Your task to perform on an android device: choose inbox layout in the gmail app Image 0: 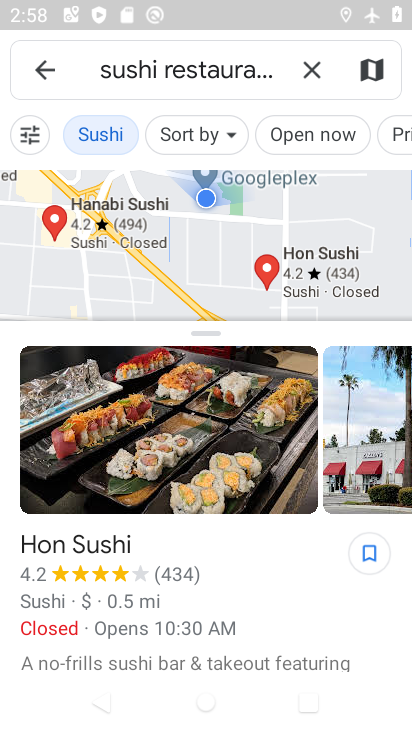
Step 0: press home button
Your task to perform on an android device: choose inbox layout in the gmail app Image 1: 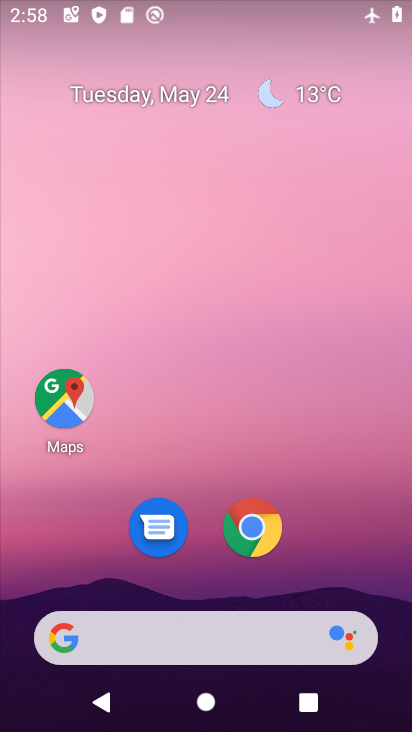
Step 1: drag from (197, 585) to (225, 147)
Your task to perform on an android device: choose inbox layout in the gmail app Image 2: 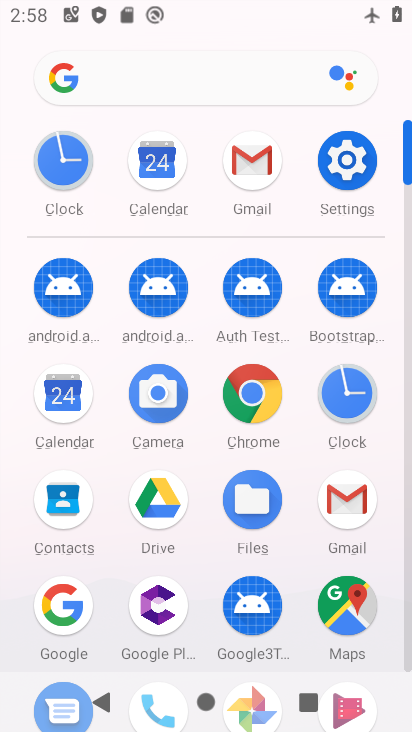
Step 2: click (327, 510)
Your task to perform on an android device: choose inbox layout in the gmail app Image 3: 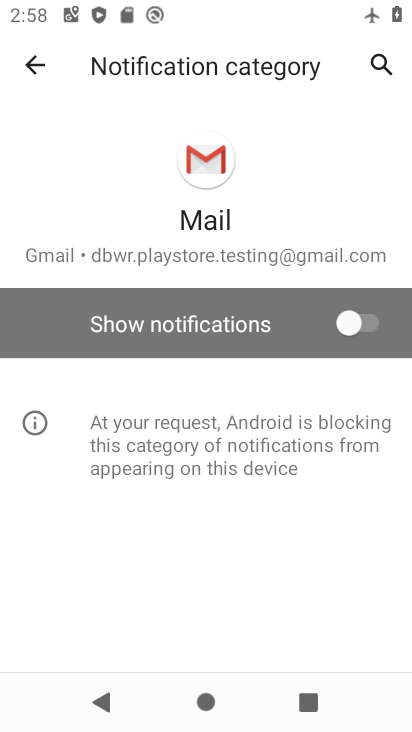
Step 3: click (35, 82)
Your task to perform on an android device: choose inbox layout in the gmail app Image 4: 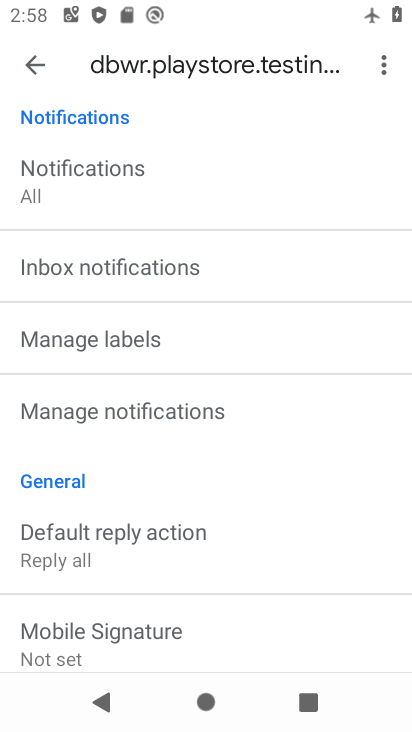
Step 4: drag from (197, 234) to (199, 631)
Your task to perform on an android device: choose inbox layout in the gmail app Image 5: 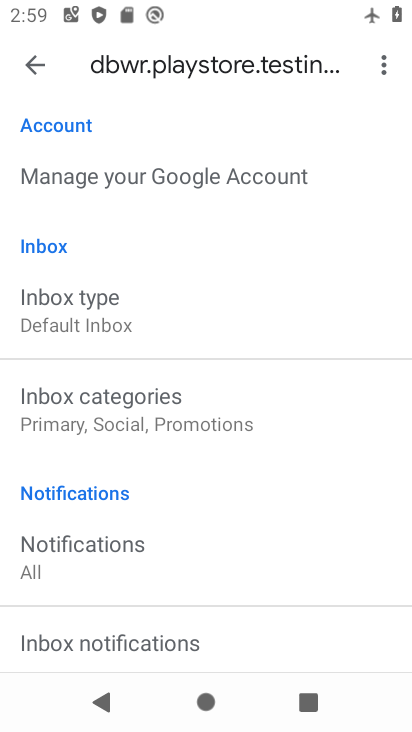
Step 5: click (117, 306)
Your task to perform on an android device: choose inbox layout in the gmail app Image 6: 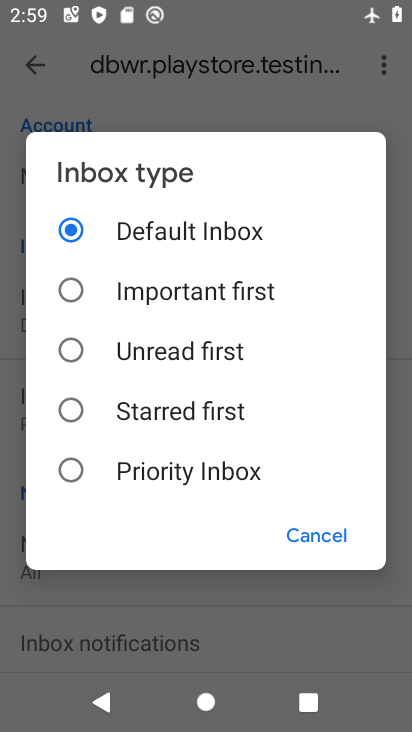
Step 6: click (133, 469)
Your task to perform on an android device: choose inbox layout in the gmail app Image 7: 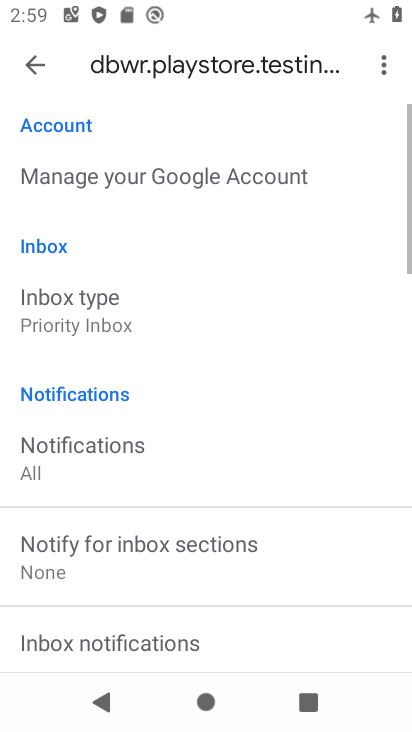
Step 7: task complete